Your task to perform on an android device: What's the weather? Image 0: 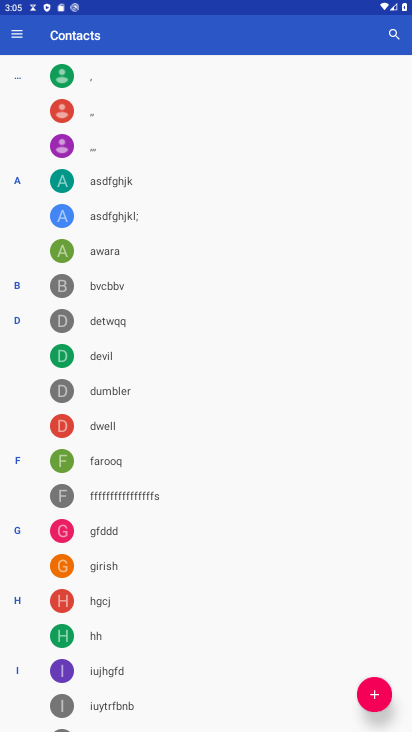
Step 0: click (400, 356)
Your task to perform on an android device: What's the weather? Image 1: 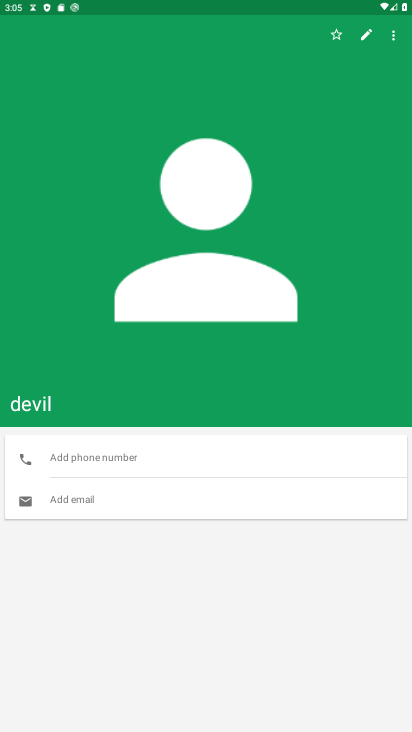
Step 1: press back button
Your task to perform on an android device: What's the weather? Image 2: 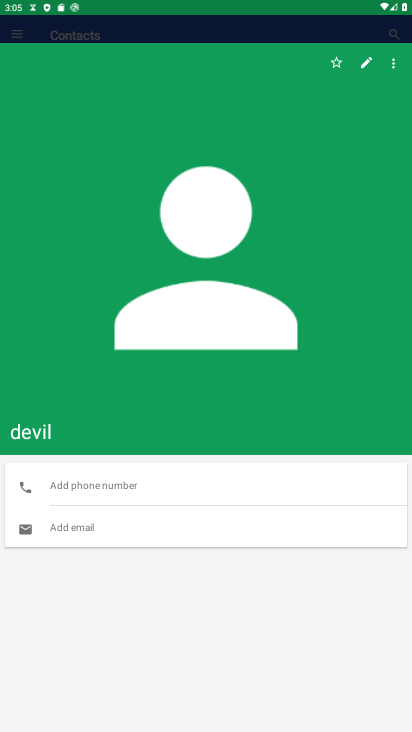
Step 2: press back button
Your task to perform on an android device: What's the weather? Image 3: 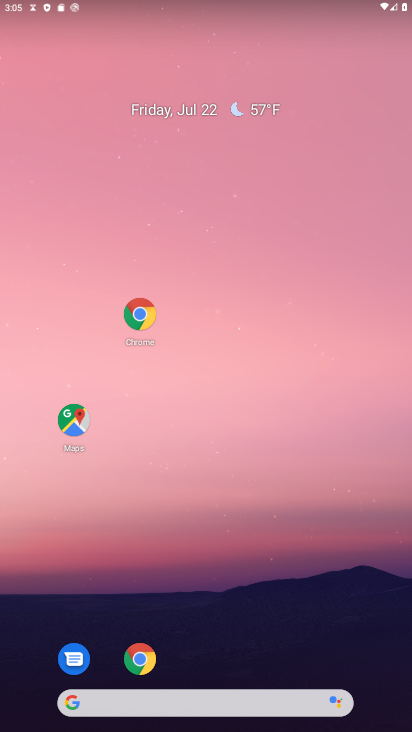
Step 3: drag from (130, 208) to (127, 163)
Your task to perform on an android device: What's the weather? Image 4: 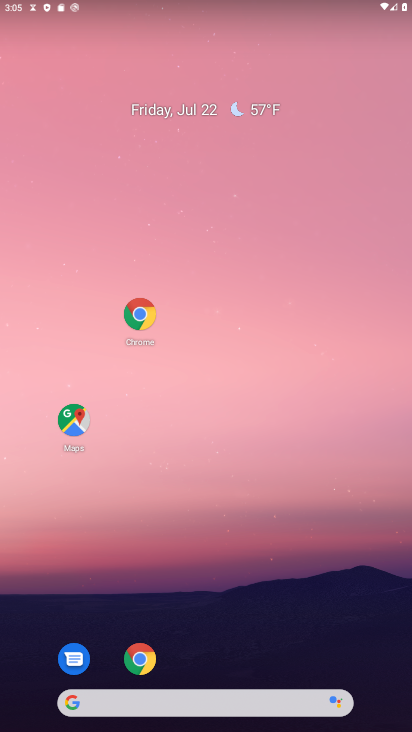
Step 4: drag from (148, 144) to (145, 27)
Your task to perform on an android device: What's the weather? Image 5: 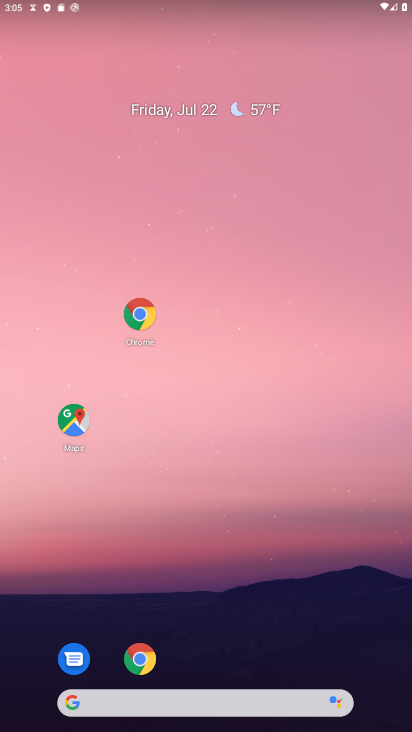
Step 5: drag from (177, 497) to (158, 88)
Your task to perform on an android device: What's the weather? Image 6: 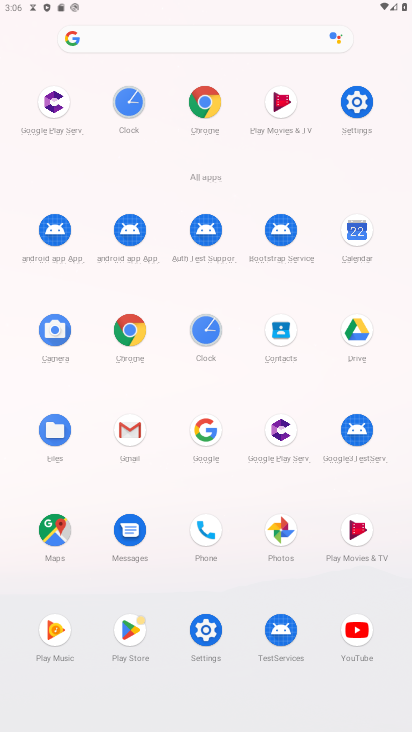
Step 6: click (357, 110)
Your task to perform on an android device: What's the weather? Image 7: 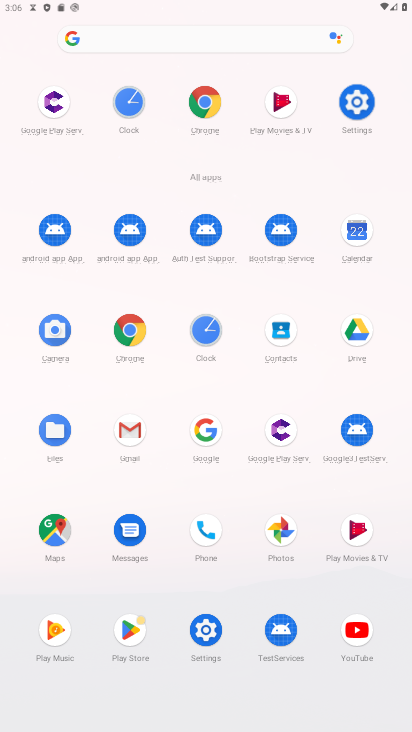
Step 7: click (355, 110)
Your task to perform on an android device: What's the weather? Image 8: 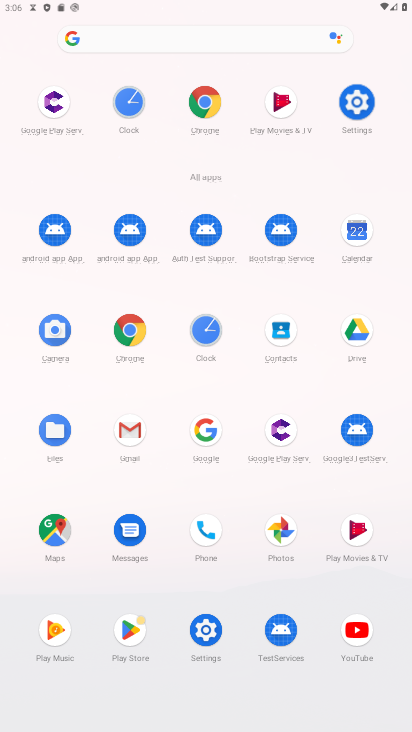
Step 8: click (355, 105)
Your task to perform on an android device: What's the weather? Image 9: 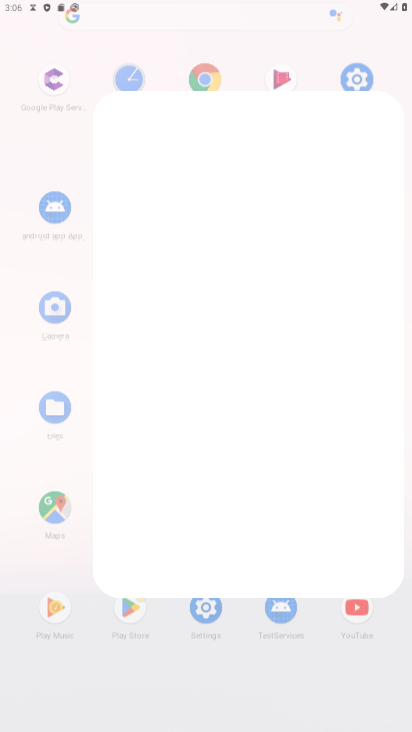
Step 9: click (354, 104)
Your task to perform on an android device: What's the weather? Image 10: 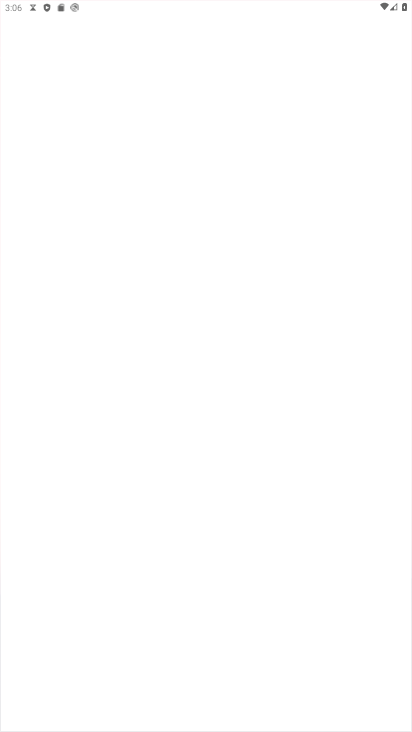
Step 10: click (357, 104)
Your task to perform on an android device: What's the weather? Image 11: 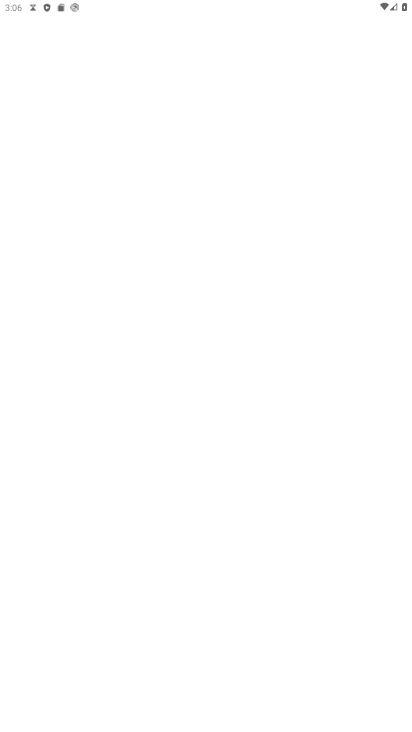
Step 11: click (356, 108)
Your task to perform on an android device: What's the weather? Image 12: 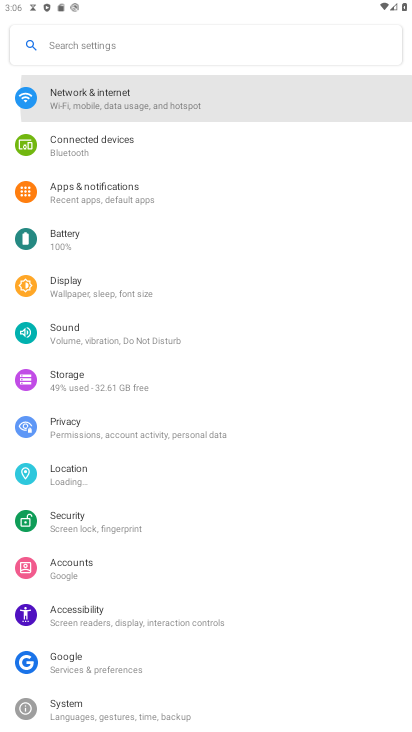
Step 12: click (364, 106)
Your task to perform on an android device: What's the weather? Image 13: 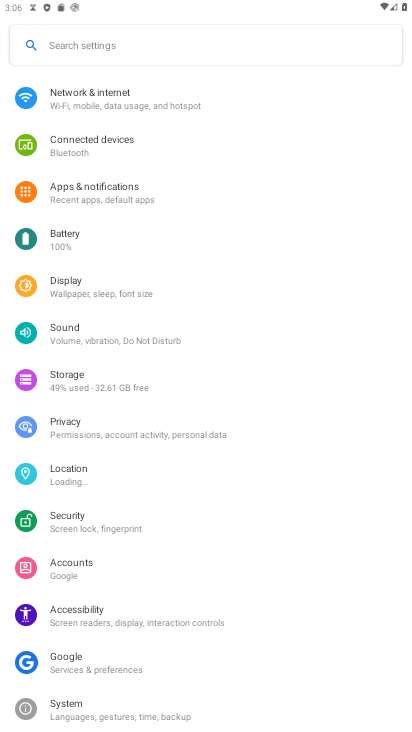
Step 13: click (375, 109)
Your task to perform on an android device: What's the weather? Image 14: 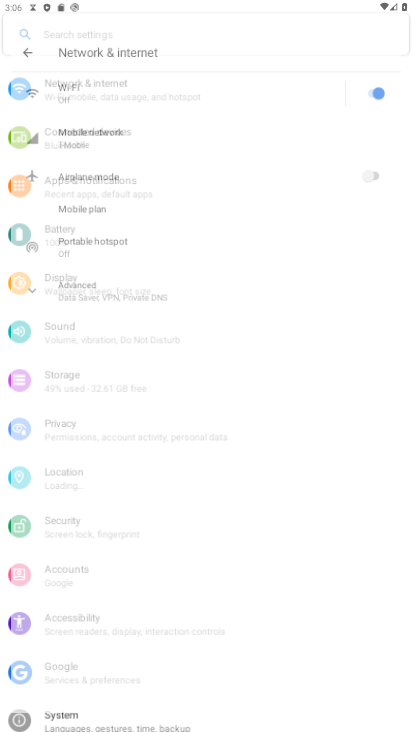
Step 14: click (375, 109)
Your task to perform on an android device: What's the weather? Image 15: 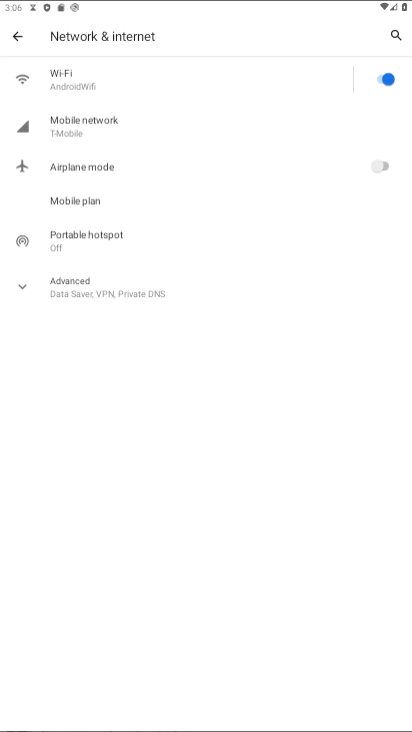
Step 15: click (375, 109)
Your task to perform on an android device: What's the weather? Image 16: 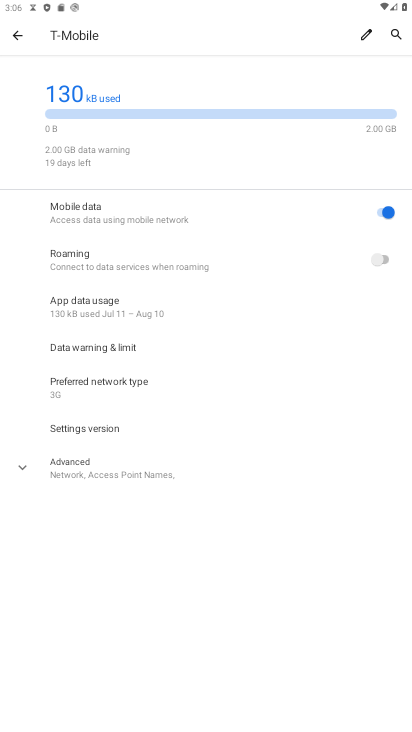
Step 16: click (16, 36)
Your task to perform on an android device: What's the weather? Image 17: 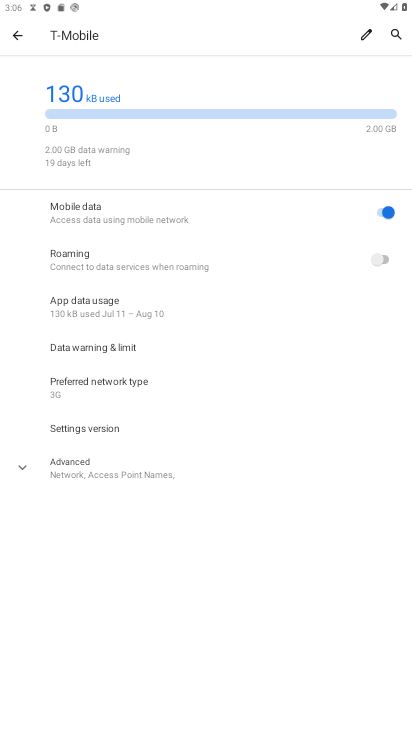
Step 17: click (15, 34)
Your task to perform on an android device: What's the weather? Image 18: 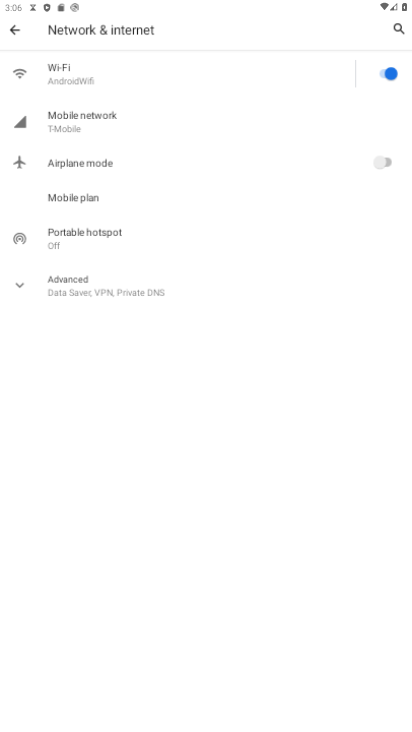
Step 18: click (18, 35)
Your task to perform on an android device: What's the weather? Image 19: 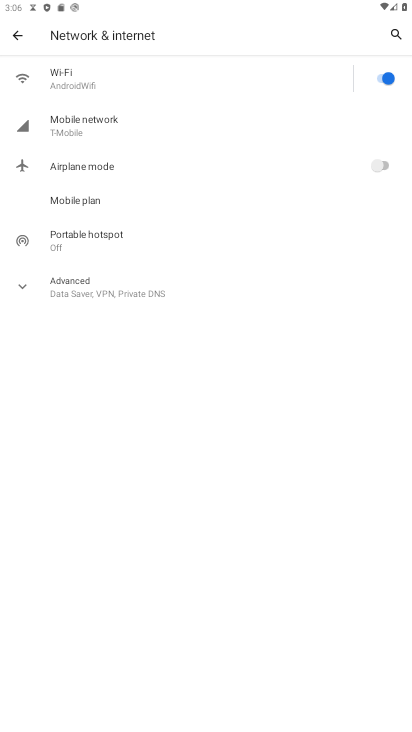
Step 19: click (21, 34)
Your task to perform on an android device: What's the weather? Image 20: 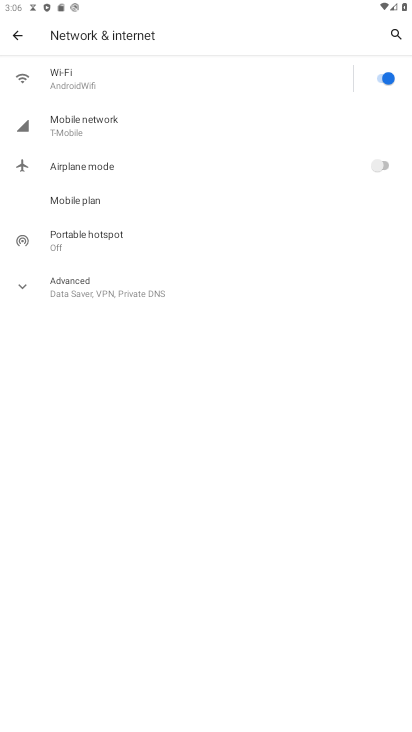
Step 20: click (22, 36)
Your task to perform on an android device: What's the weather? Image 21: 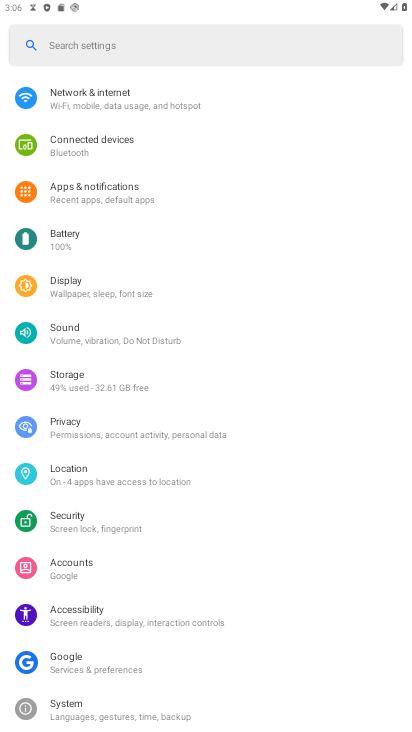
Step 21: click (55, 76)
Your task to perform on an android device: What's the weather? Image 22: 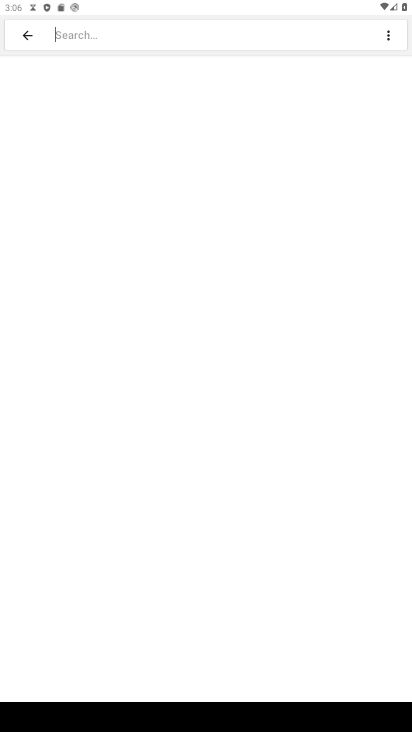
Step 22: type "weatheerr"
Your task to perform on an android device: What's the weather? Image 23: 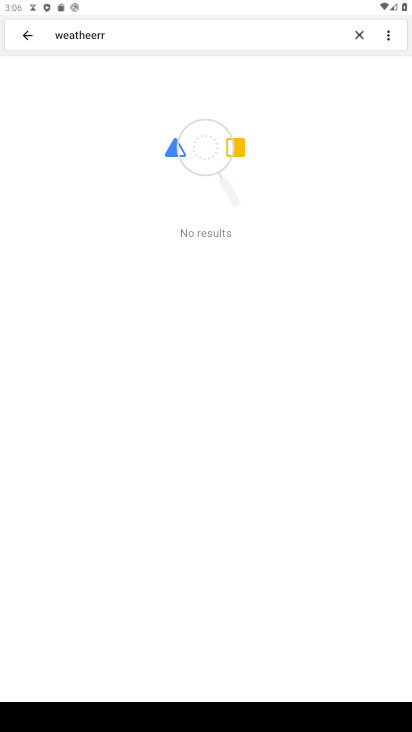
Step 23: task complete